Your task to perform on an android device: Add "logitech g910" to the cart on newegg.com, then select checkout. Image 0: 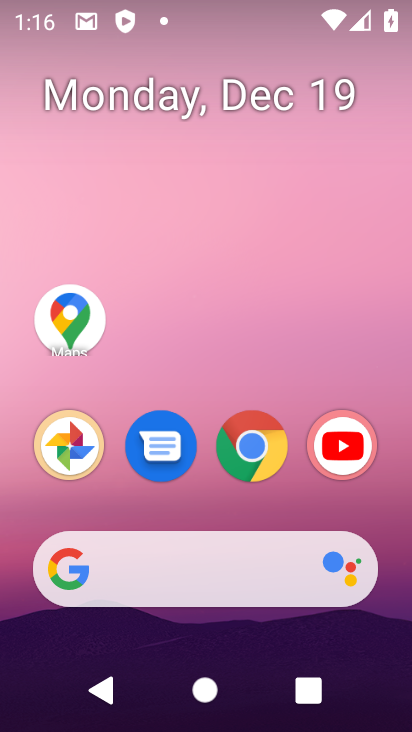
Step 0: click (270, 468)
Your task to perform on an android device: Add "logitech g910" to the cart on newegg.com, then select checkout. Image 1: 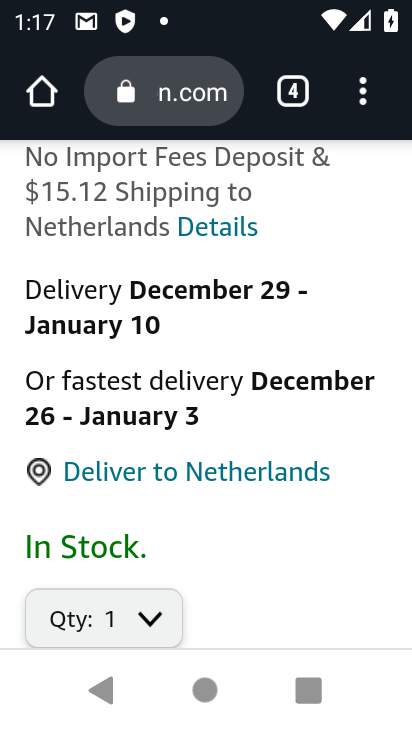
Step 1: click (213, 83)
Your task to perform on an android device: Add "logitech g910" to the cart on newegg.com, then select checkout. Image 2: 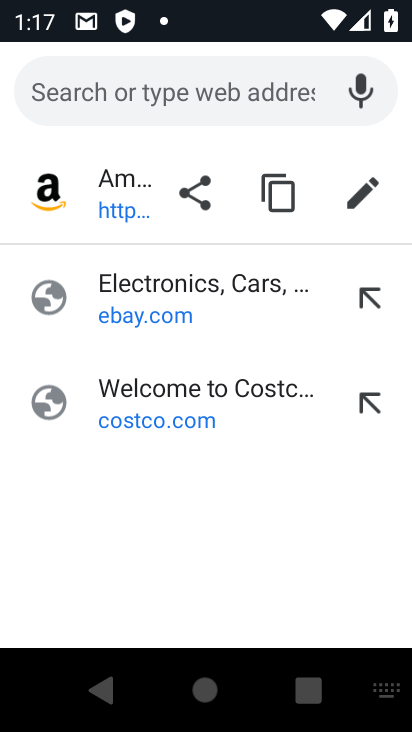
Step 2: type "neweg"
Your task to perform on an android device: Add "logitech g910" to the cart on newegg.com, then select checkout. Image 3: 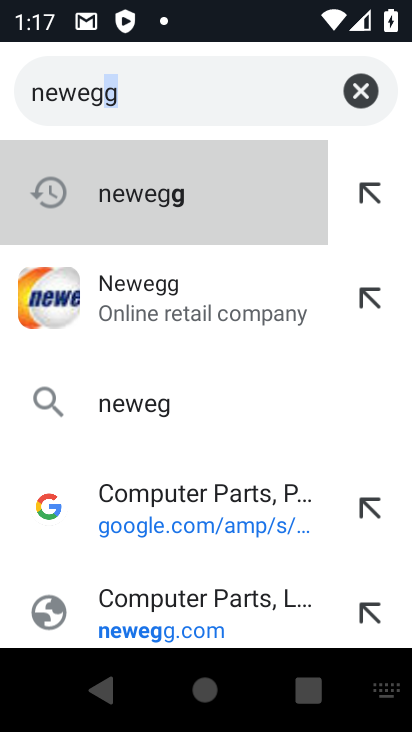
Step 3: click (170, 304)
Your task to perform on an android device: Add "logitech g910" to the cart on newegg.com, then select checkout. Image 4: 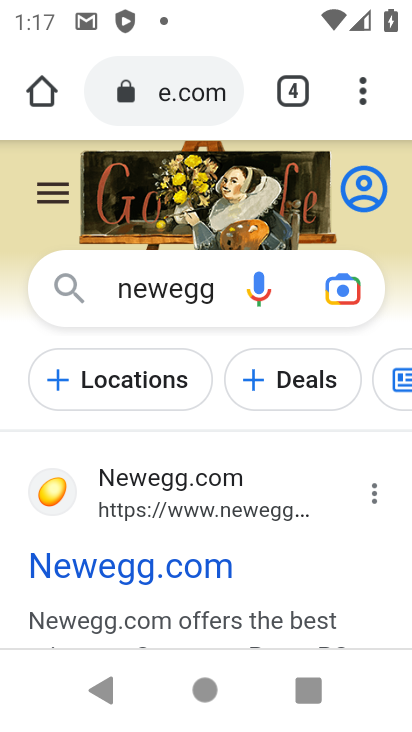
Step 4: click (206, 555)
Your task to perform on an android device: Add "logitech g910" to the cart on newegg.com, then select checkout. Image 5: 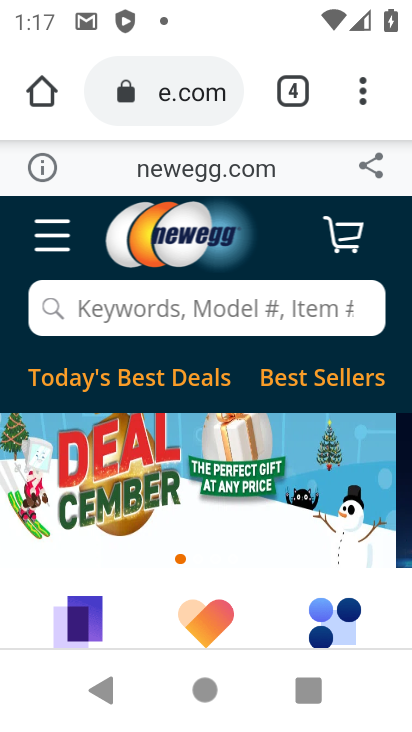
Step 5: click (166, 318)
Your task to perform on an android device: Add "logitech g910" to the cart on newegg.com, then select checkout. Image 6: 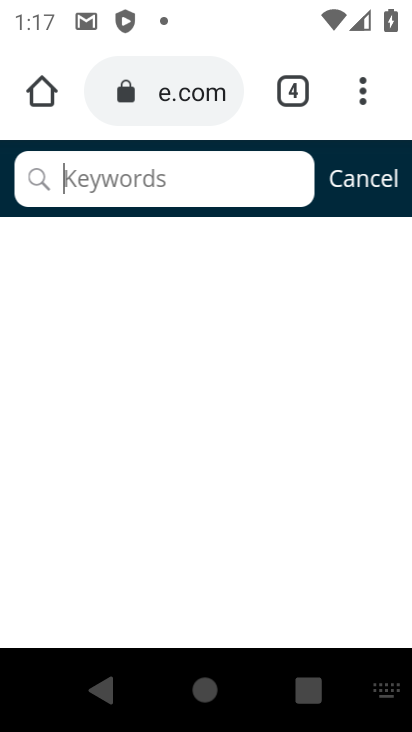
Step 6: type "logitech g910"
Your task to perform on an android device: Add "logitech g910" to the cart on newegg.com, then select checkout. Image 7: 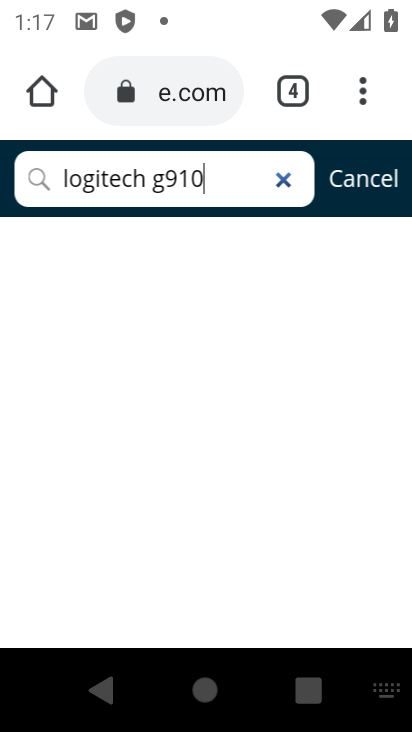
Step 7: task complete